Your task to perform on an android device: Go to notification settings Image 0: 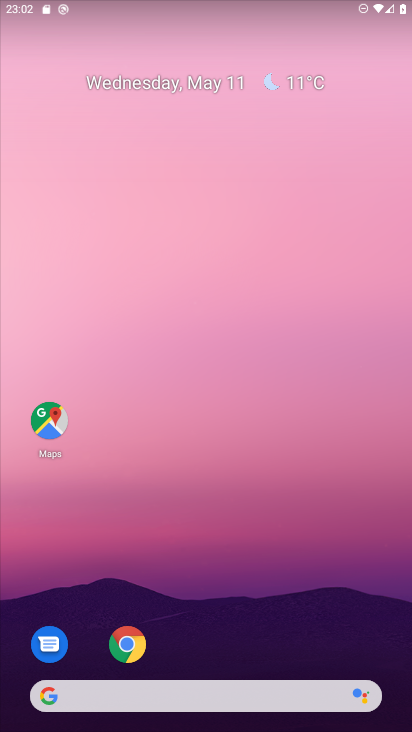
Step 0: drag from (392, 516) to (315, 83)
Your task to perform on an android device: Go to notification settings Image 1: 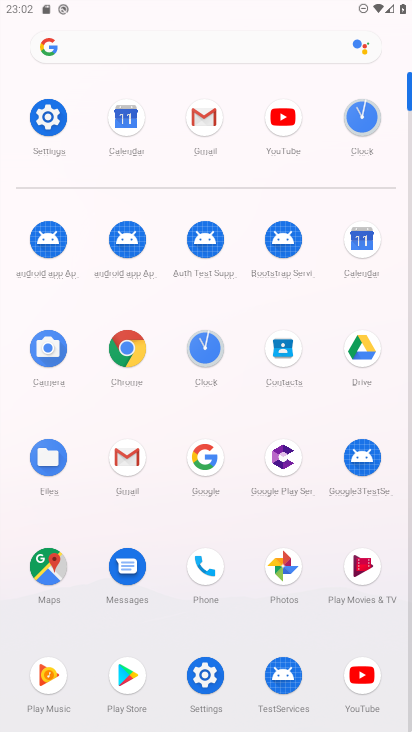
Step 1: click (42, 122)
Your task to perform on an android device: Go to notification settings Image 2: 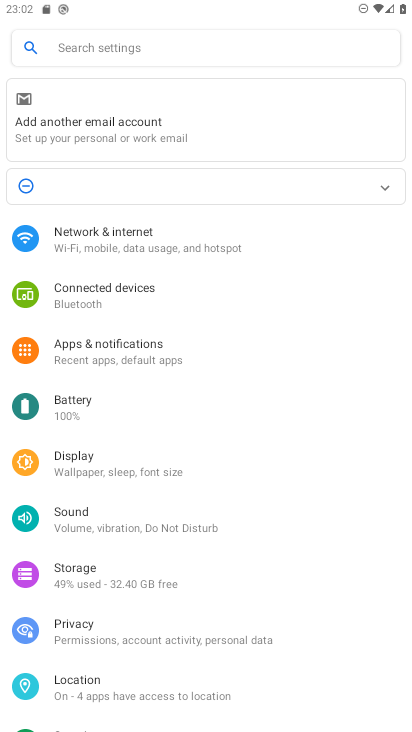
Step 2: click (96, 343)
Your task to perform on an android device: Go to notification settings Image 3: 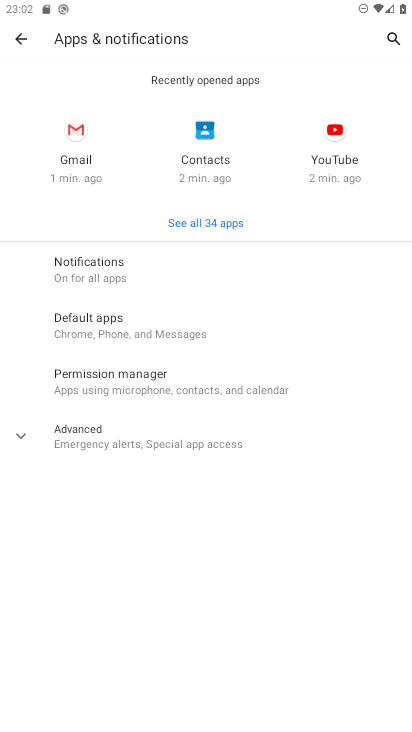
Step 3: task complete